Your task to perform on an android device: What's the weather today? Image 0: 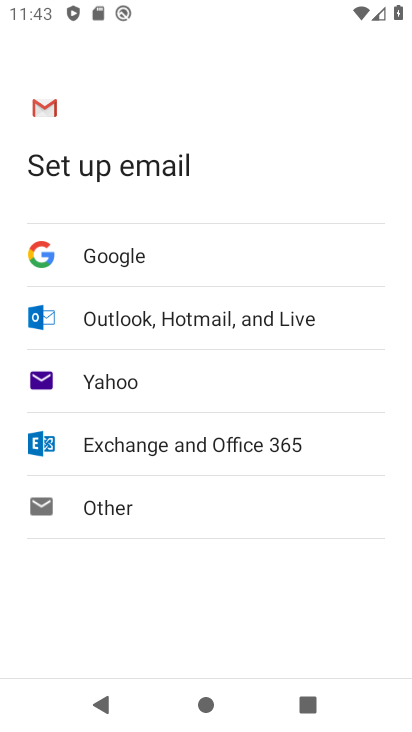
Step 0: press home button
Your task to perform on an android device: What's the weather today? Image 1: 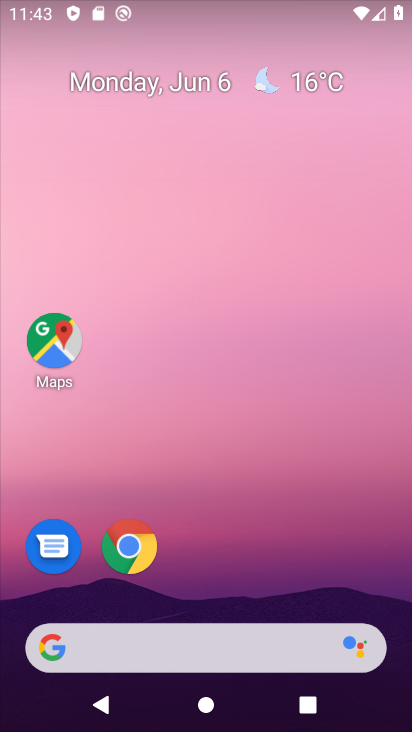
Step 1: drag from (231, 577) to (251, 56)
Your task to perform on an android device: What's the weather today? Image 2: 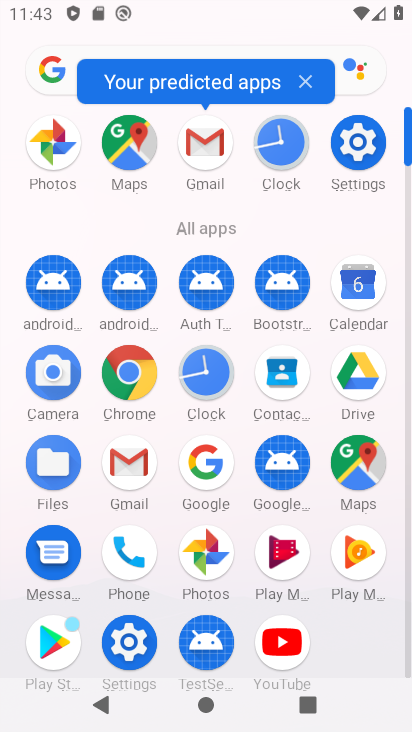
Step 2: click (133, 76)
Your task to perform on an android device: What's the weather today? Image 3: 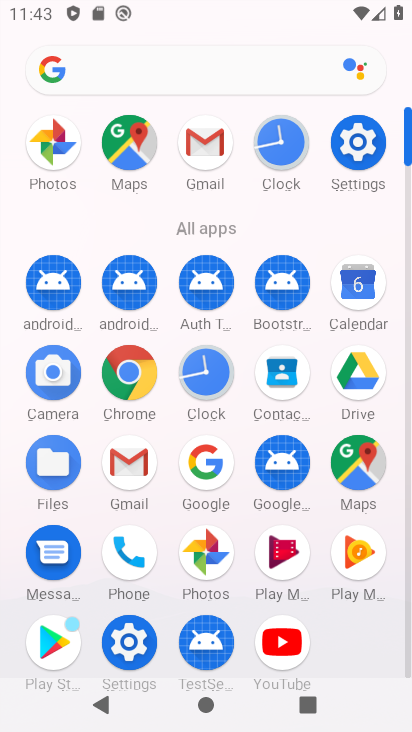
Step 3: click (133, 76)
Your task to perform on an android device: What's the weather today? Image 4: 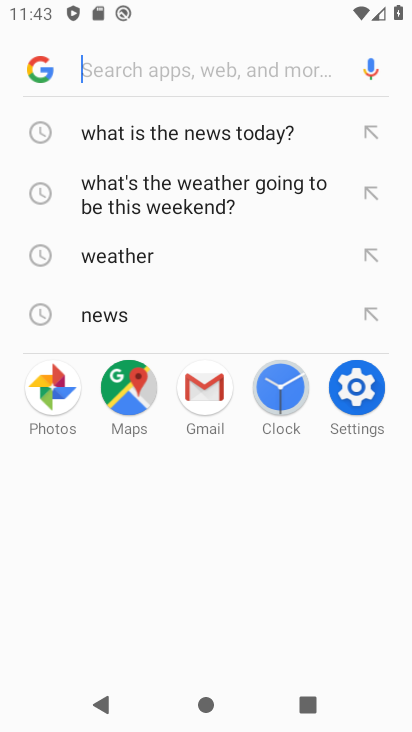
Step 4: click (130, 253)
Your task to perform on an android device: What's the weather today? Image 5: 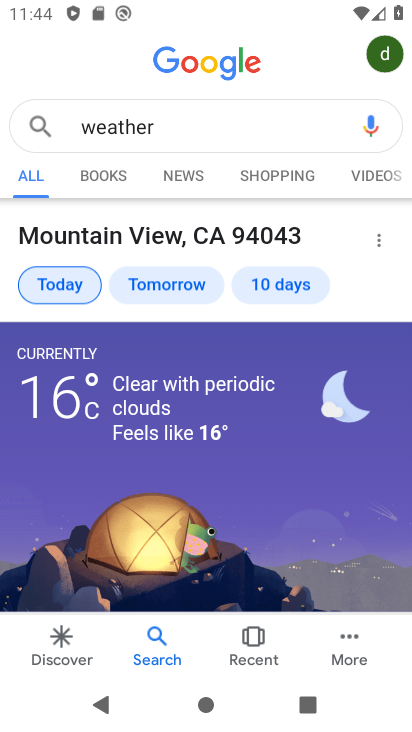
Step 5: task complete